Your task to perform on an android device: Open Amazon Image 0: 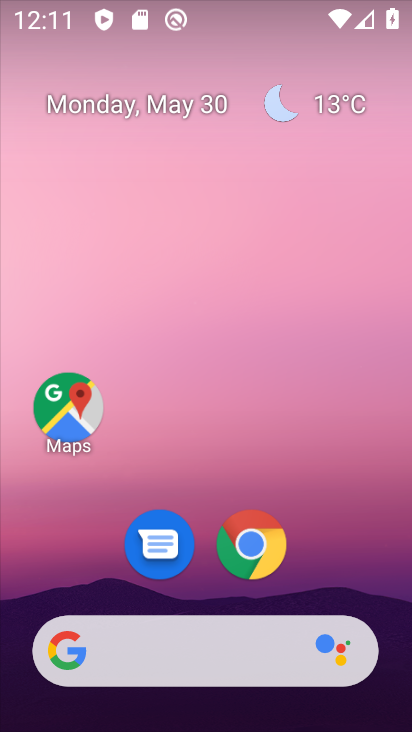
Step 0: click (270, 540)
Your task to perform on an android device: Open Amazon Image 1: 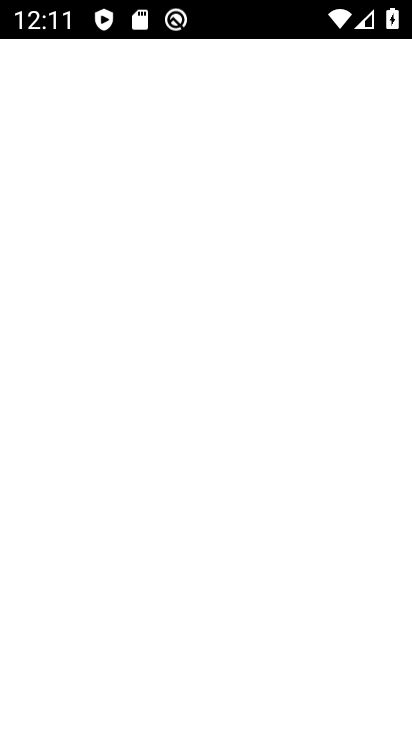
Step 1: click (270, 540)
Your task to perform on an android device: Open Amazon Image 2: 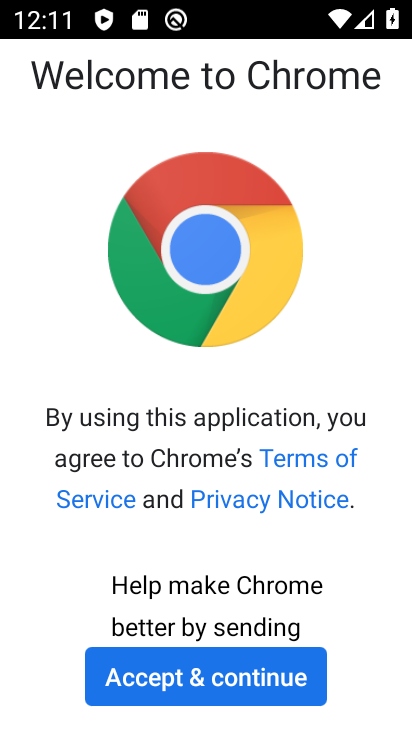
Step 2: click (270, 654)
Your task to perform on an android device: Open Amazon Image 3: 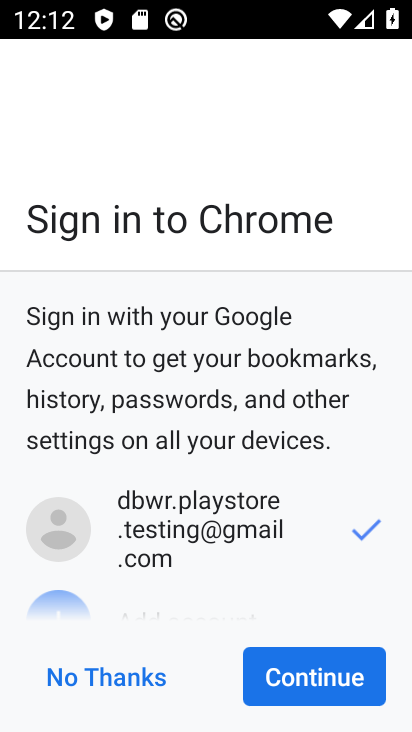
Step 3: click (270, 654)
Your task to perform on an android device: Open Amazon Image 4: 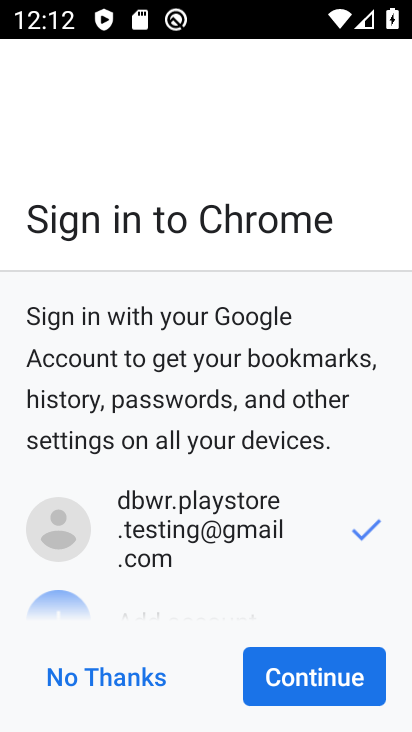
Step 4: click (270, 654)
Your task to perform on an android device: Open Amazon Image 5: 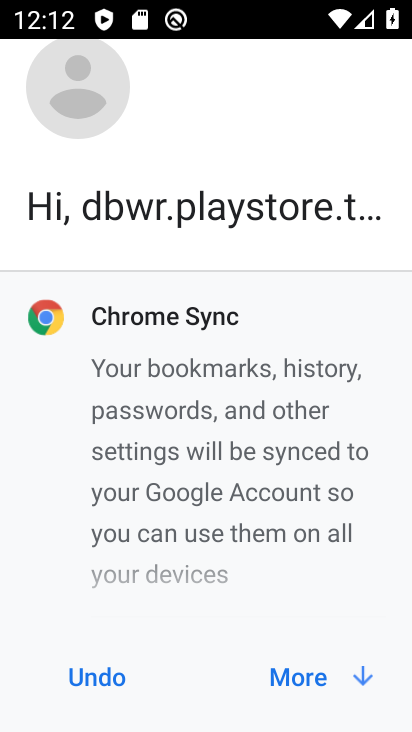
Step 5: click (270, 654)
Your task to perform on an android device: Open Amazon Image 6: 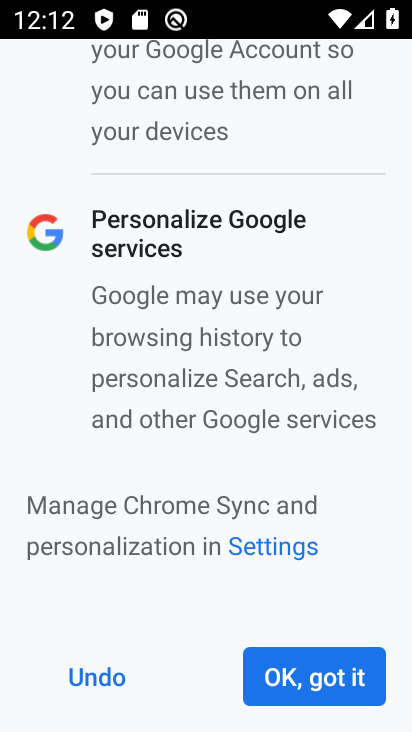
Step 6: click (287, 664)
Your task to perform on an android device: Open Amazon Image 7: 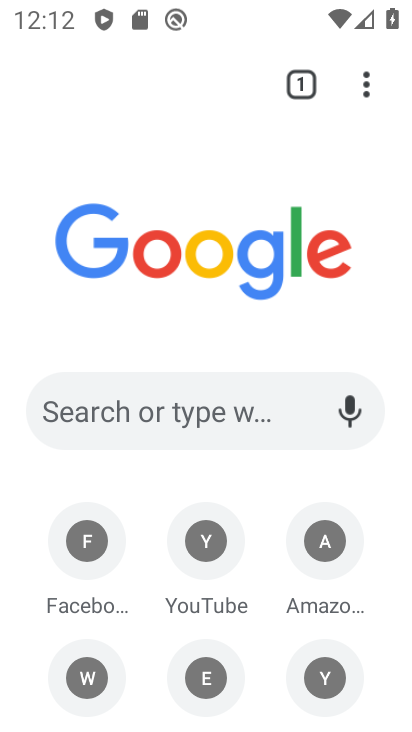
Step 7: task complete